Your task to perform on an android device: Open ESPN.com Image 0: 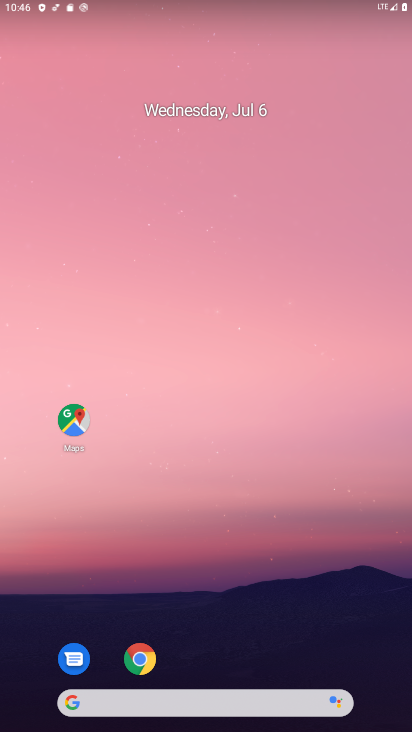
Step 0: click (132, 656)
Your task to perform on an android device: Open ESPN.com Image 1: 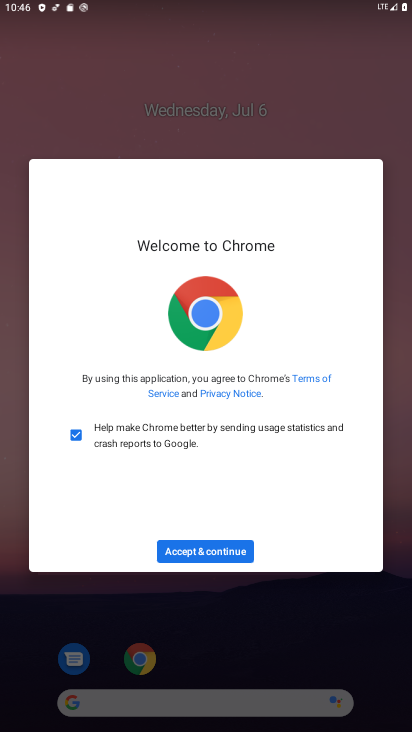
Step 1: click (185, 554)
Your task to perform on an android device: Open ESPN.com Image 2: 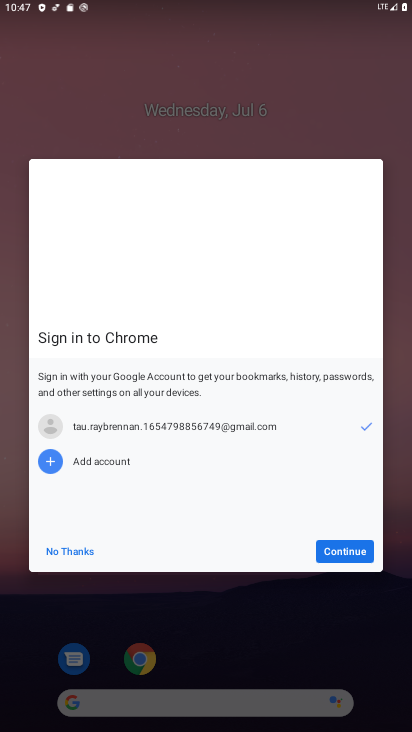
Step 2: click (348, 554)
Your task to perform on an android device: Open ESPN.com Image 3: 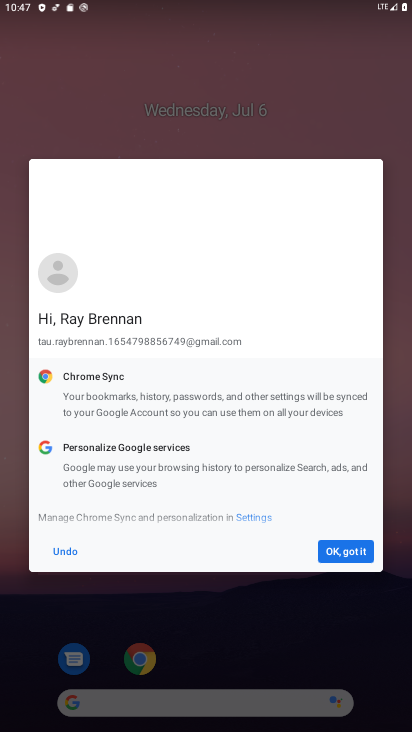
Step 3: click (322, 550)
Your task to perform on an android device: Open ESPN.com Image 4: 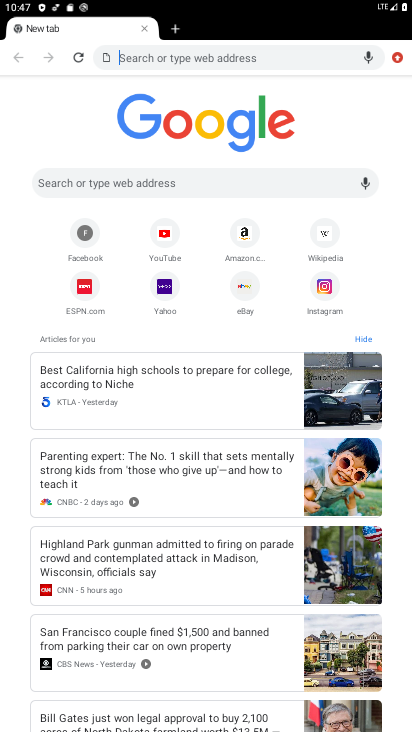
Step 4: click (87, 306)
Your task to perform on an android device: Open ESPN.com Image 5: 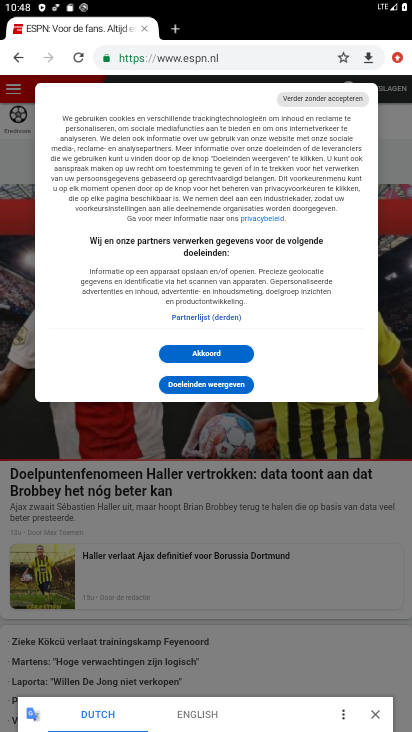
Step 5: task complete